Your task to perform on an android device: Do I have any events today? Image 0: 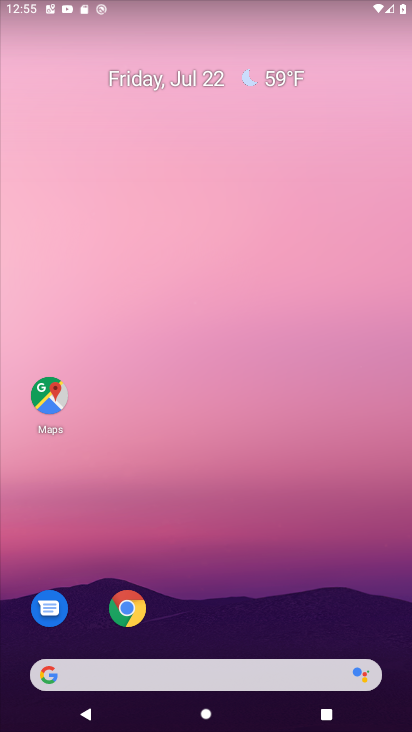
Step 0: drag from (234, 549) to (232, 12)
Your task to perform on an android device: Do I have any events today? Image 1: 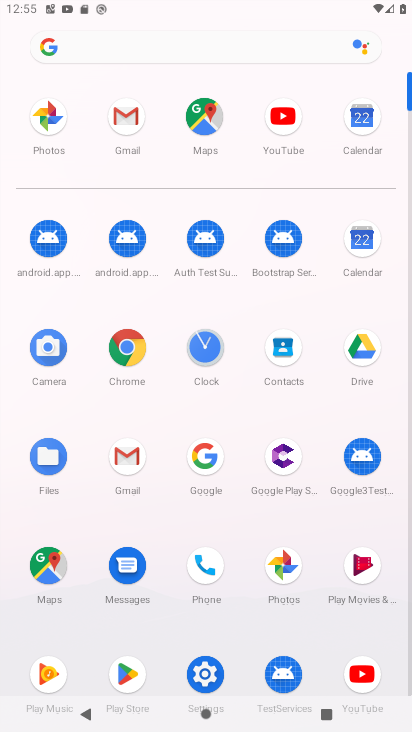
Step 1: click (349, 237)
Your task to perform on an android device: Do I have any events today? Image 2: 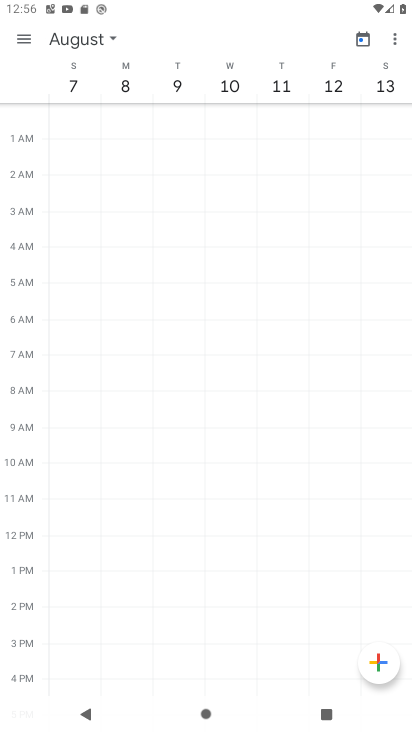
Step 2: click (83, 35)
Your task to perform on an android device: Do I have any events today? Image 3: 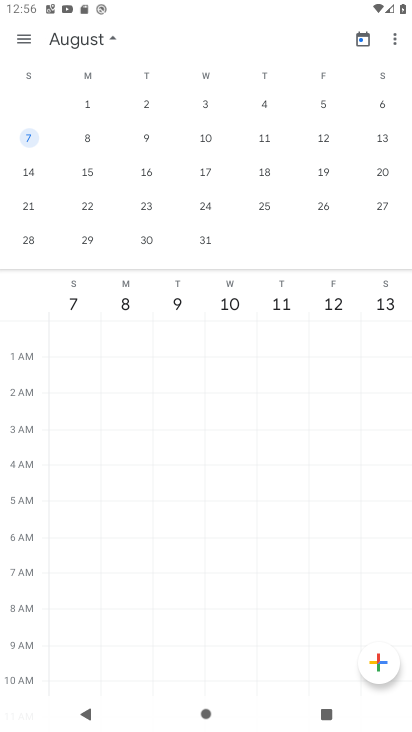
Step 3: drag from (147, 206) to (376, 231)
Your task to perform on an android device: Do I have any events today? Image 4: 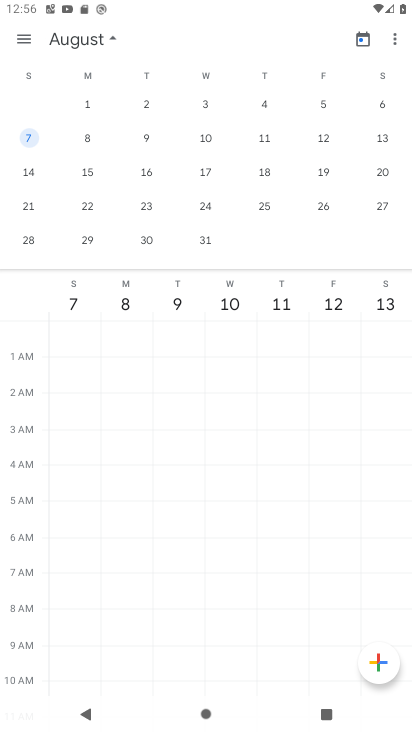
Step 4: drag from (99, 173) to (395, 157)
Your task to perform on an android device: Do I have any events today? Image 5: 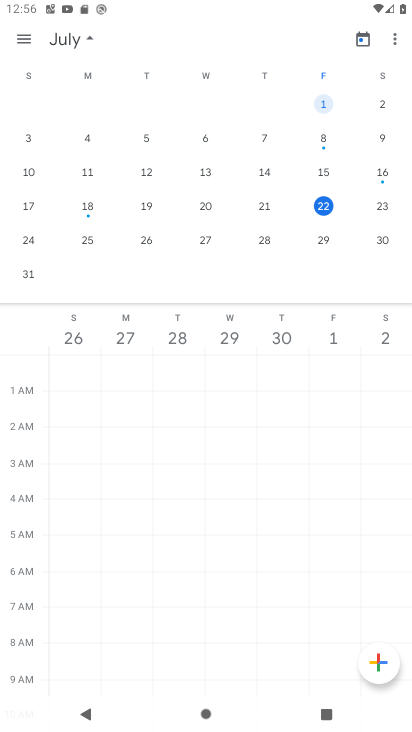
Step 5: click (205, 209)
Your task to perform on an android device: Do I have any events today? Image 6: 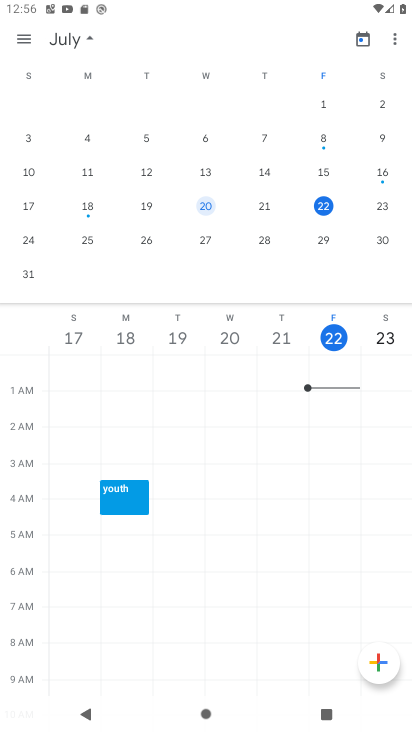
Step 6: click (16, 40)
Your task to perform on an android device: Do I have any events today? Image 7: 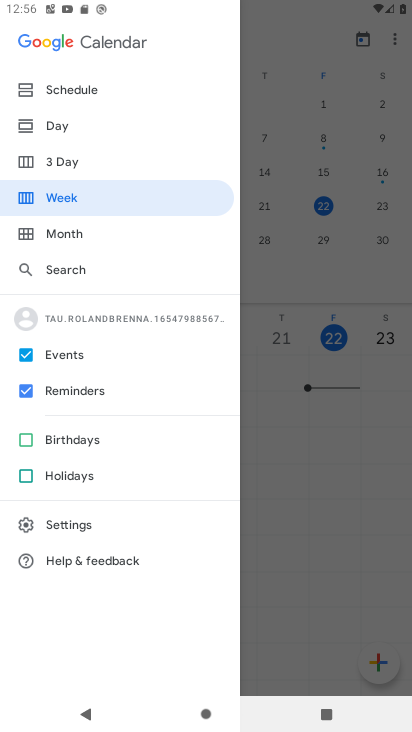
Step 7: click (68, 385)
Your task to perform on an android device: Do I have any events today? Image 8: 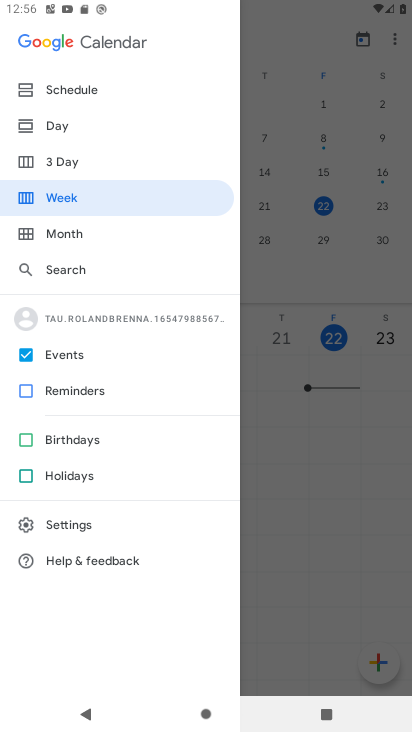
Step 8: click (49, 125)
Your task to perform on an android device: Do I have any events today? Image 9: 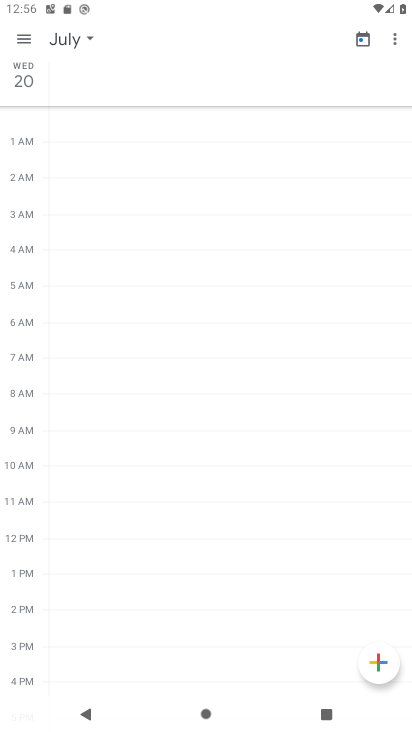
Step 9: task complete